Your task to perform on an android device: turn off airplane mode Image 0: 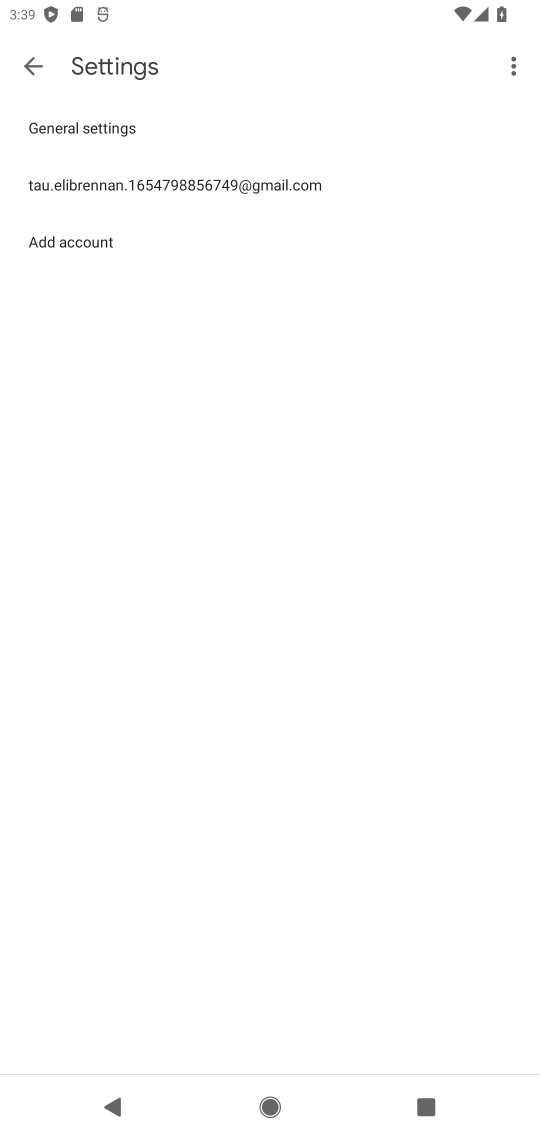
Step 0: press home button
Your task to perform on an android device: turn off airplane mode Image 1: 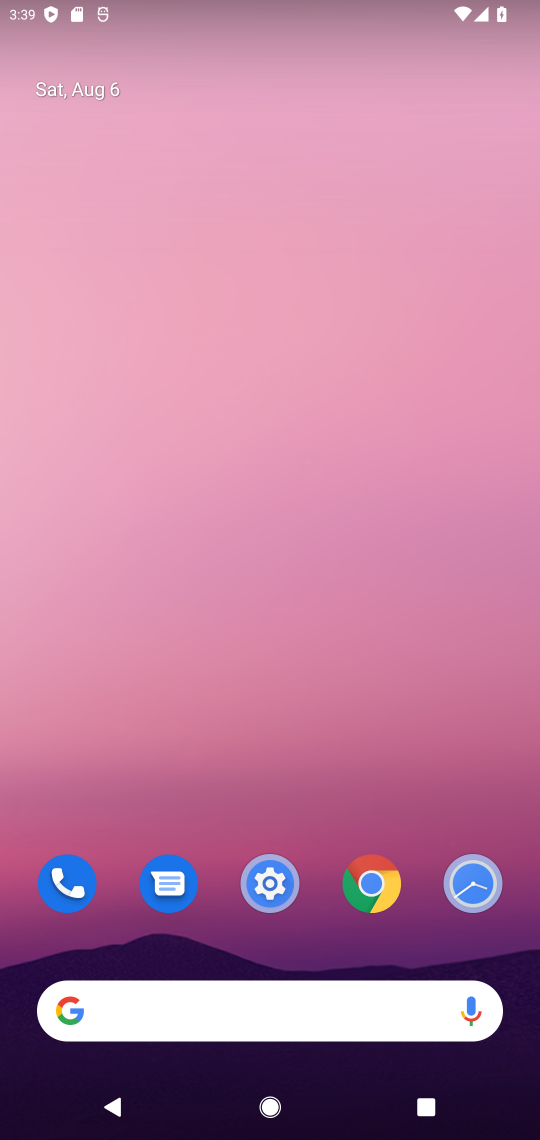
Step 1: drag from (303, 988) to (320, 20)
Your task to perform on an android device: turn off airplane mode Image 2: 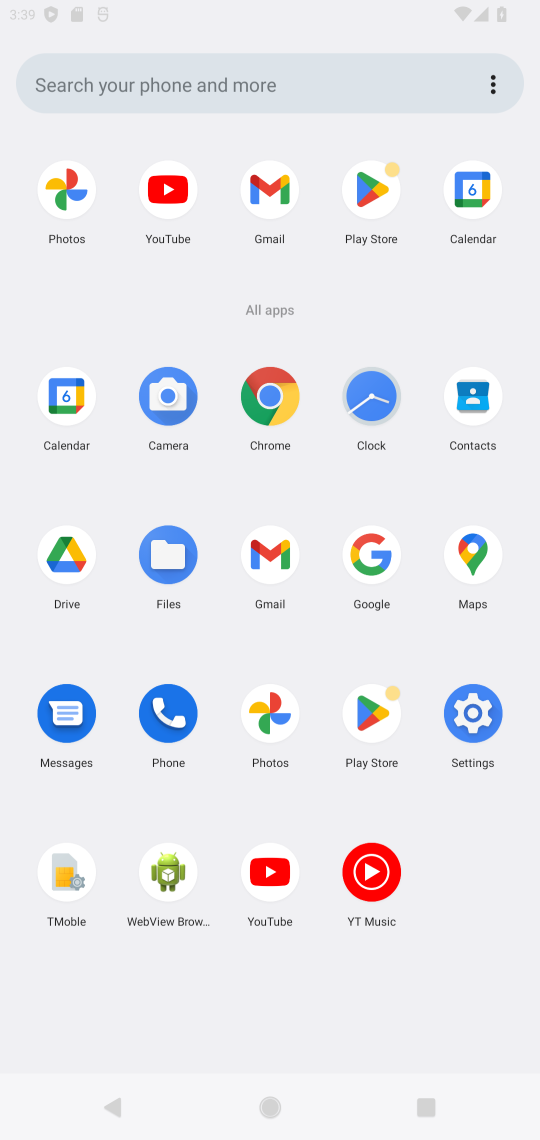
Step 2: click (319, 10)
Your task to perform on an android device: turn off airplane mode Image 3: 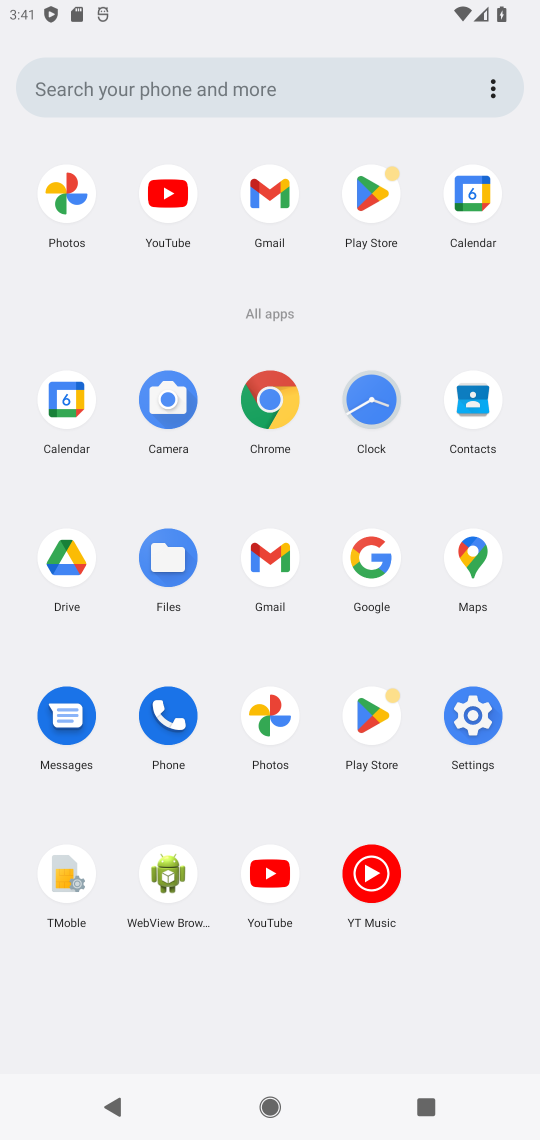
Step 3: click (461, 743)
Your task to perform on an android device: turn off airplane mode Image 4: 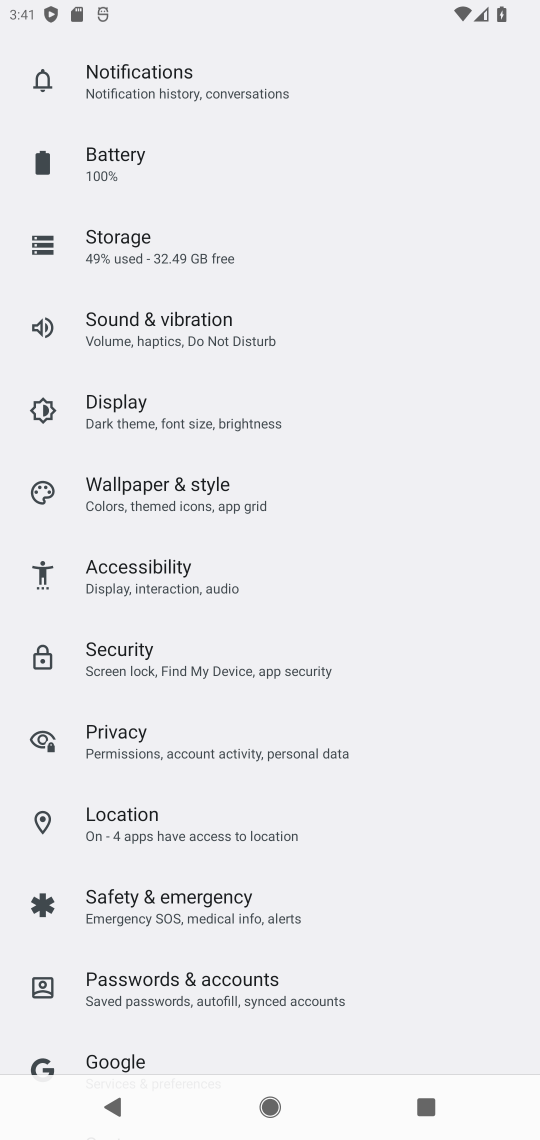
Step 4: drag from (239, 866) to (235, 1134)
Your task to perform on an android device: turn off airplane mode Image 5: 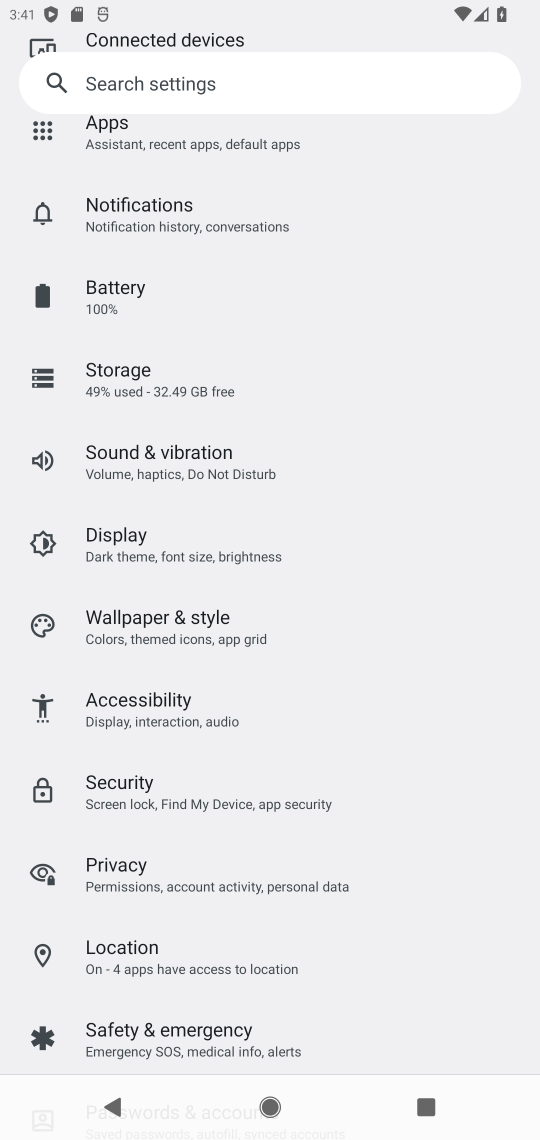
Step 5: drag from (313, 652) to (276, 947)
Your task to perform on an android device: turn off airplane mode Image 6: 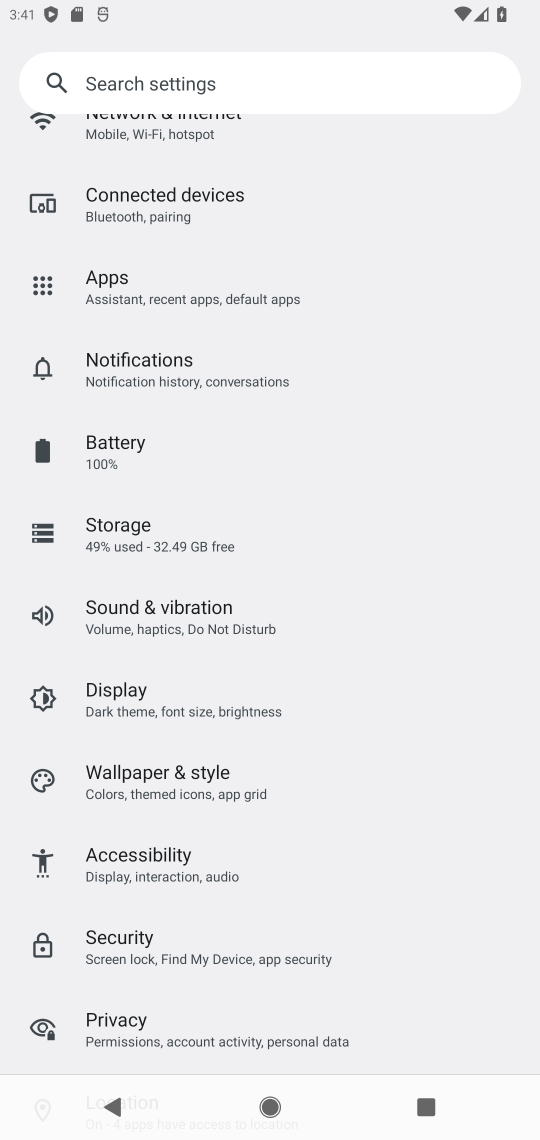
Step 6: drag from (237, 577) to (143, 956)
Your task to perform on an android device: turn off airplane mode Image 7: 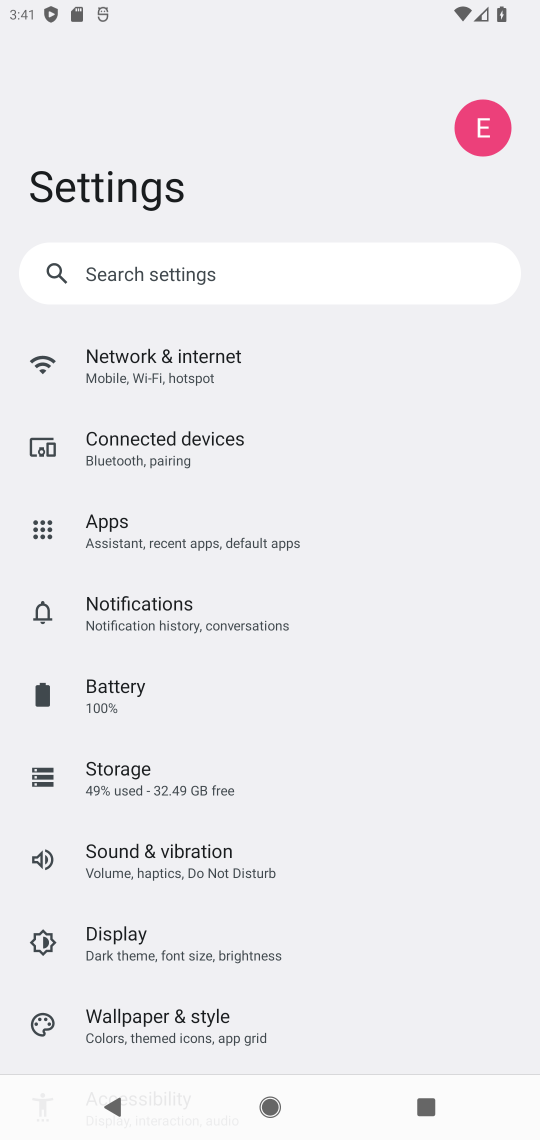
Step 7: click (207, 366)
Your task to perform on an android device: turn off airplane mode Image 8: 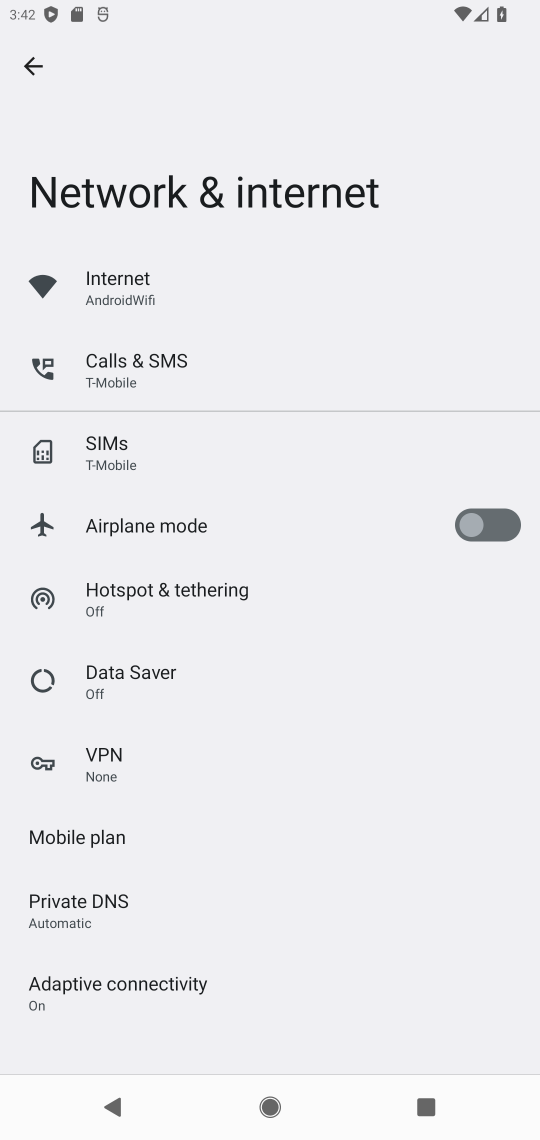
Step 8: task complete